Your task to perform on an android device: Go to eBay Image 0: 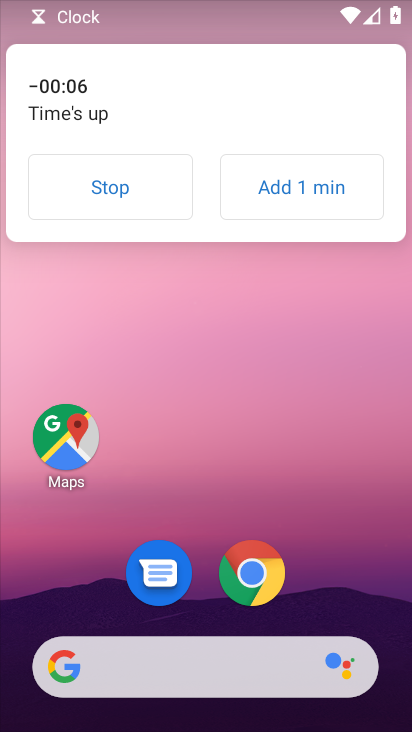
Step 0: click (247, 591)
Your task to perform on an android device: Go to eBay Image 1: 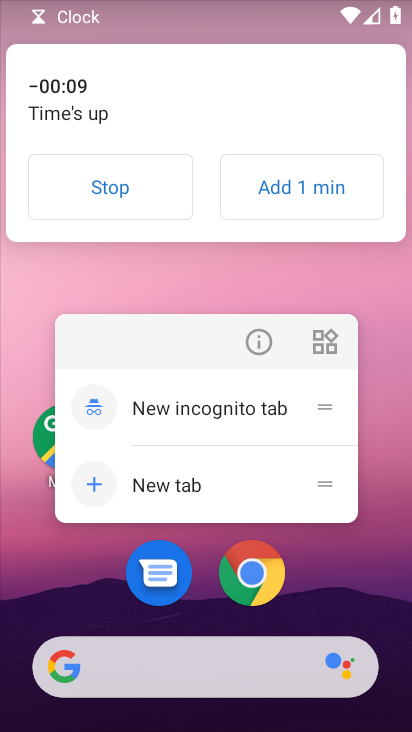
Step 1: click (108, 188)
Your task to perform on an android device: Go to eBay Image 2: 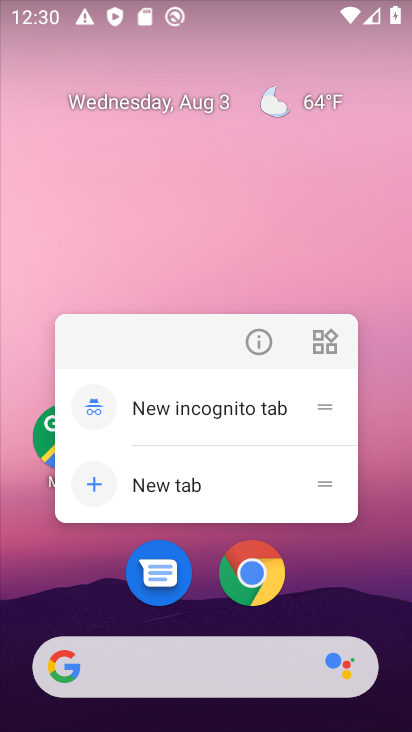
Step 2: click (273, 589)
Your task to perform on an android device: Go to eBay Image 3: 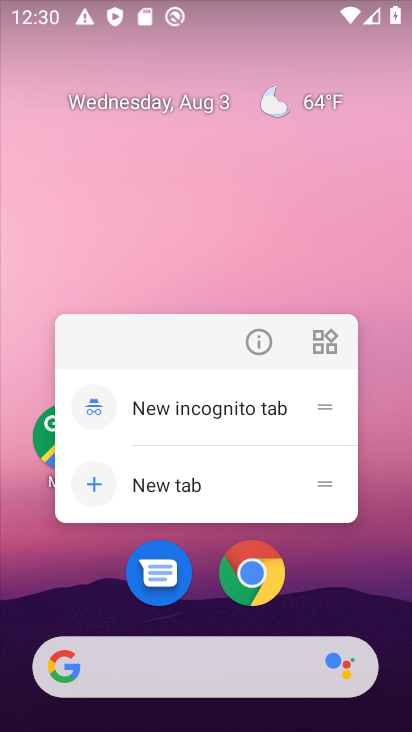
Step 3: click (254, 606)
Your task to perform on an android device: Go to eBay Image 4: 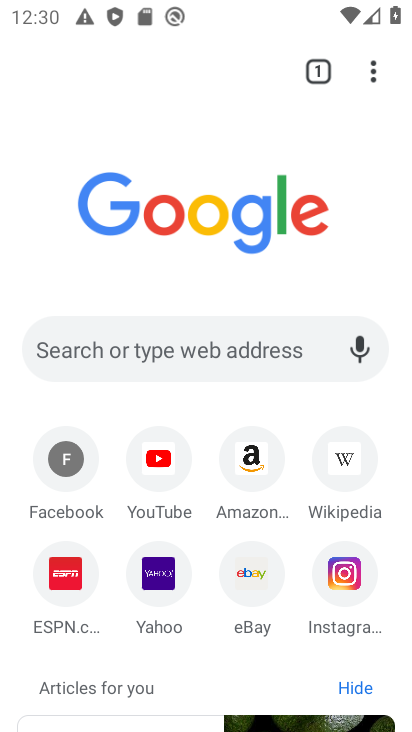
Step 4: click (249, 579)
Your task to perform on an android device: Go to eBay Image 5: 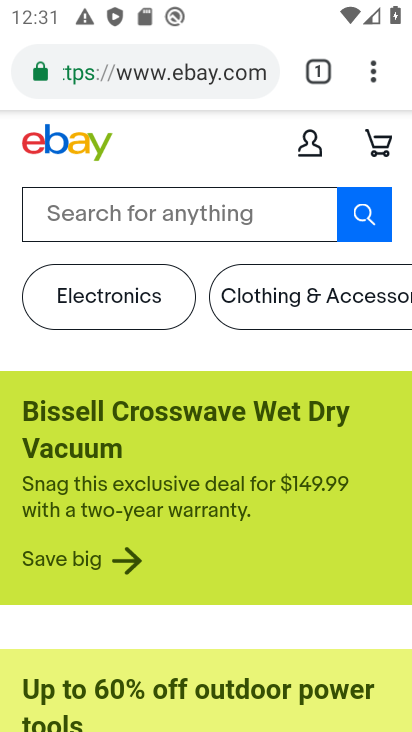
Step 5: task complete